Your task to perform on an android device: Go to internet settings Image 0: 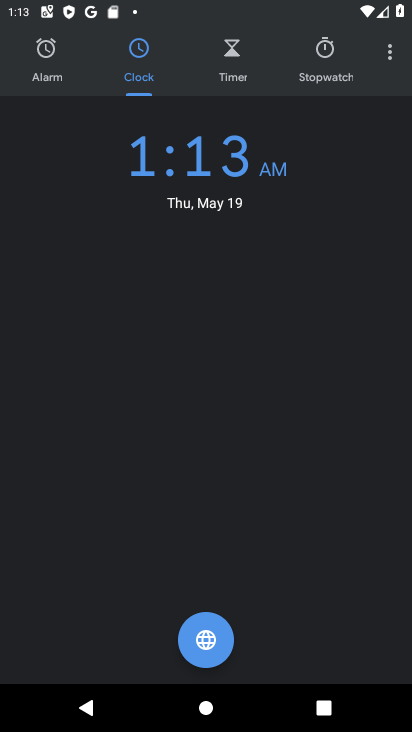
Step 0: press home button
Your task to perform on an android device: Go to internet settings Image 1: 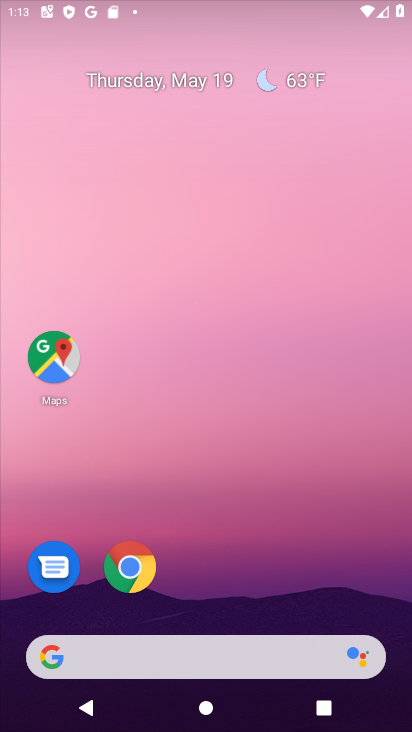
Step 1: drag from (319, 446) to (287, 2)
Your task to perform on an android device: Go to internet settings Image 2: 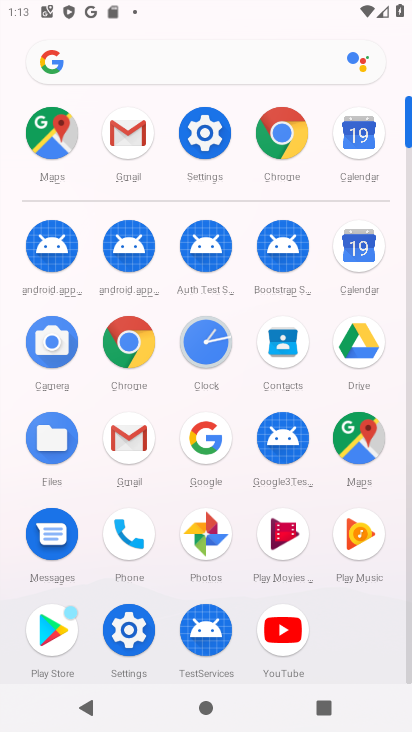
Step 2: click (199, 130)
Your task to perform on an android device: Go to internet settings Image 3: 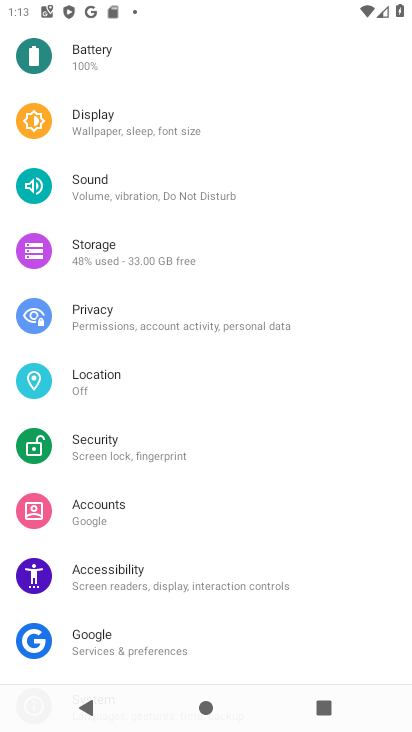
Step 3: drag from (201, 122) to (194, 529)
Your task to perform on an android device: Go to internet settings Image 4: 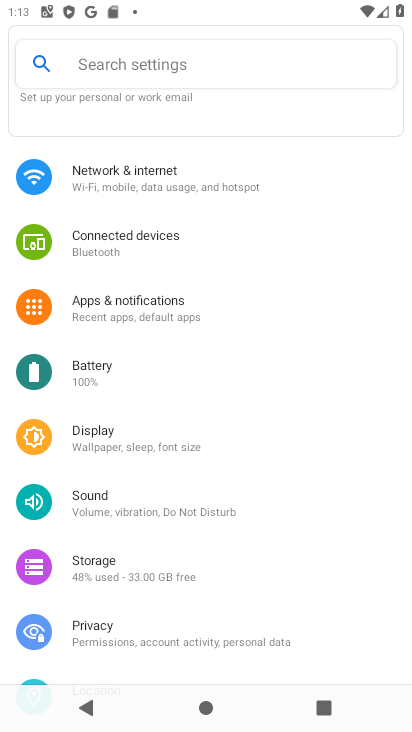
Step 4: drag from (179, 172) to (215, 498)
Your task to perform on an android device: Go to internet settings Image 5: 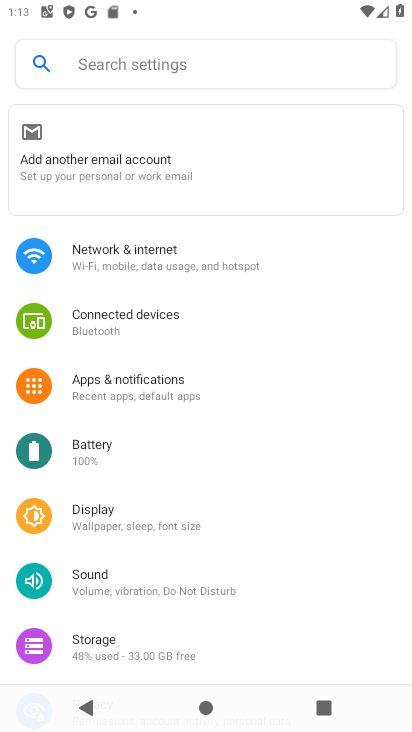
Step 5: click (135, 259)
Your task to perform on an android device: Go to internet settings Image 6: 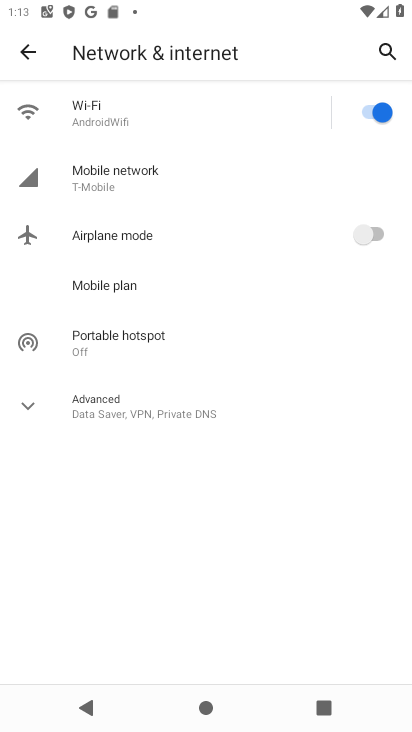
Step 6: task complete